Your task to perform on an android device: Show me popular videos on Youtube Image 0: 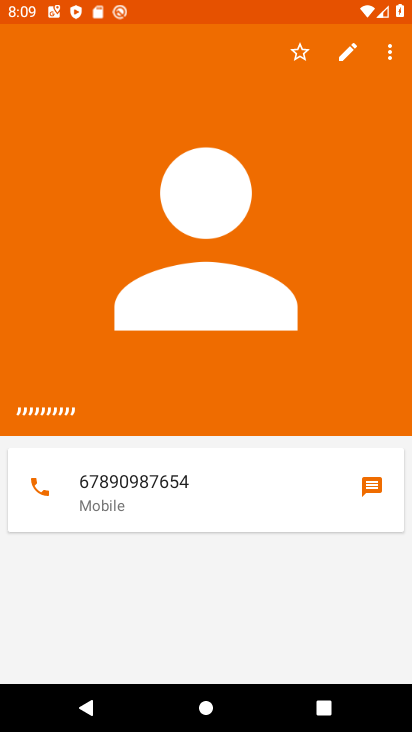
Step 0: press home button
Your task to perform on an android device: Show me popular videos on Youtube Image 1: 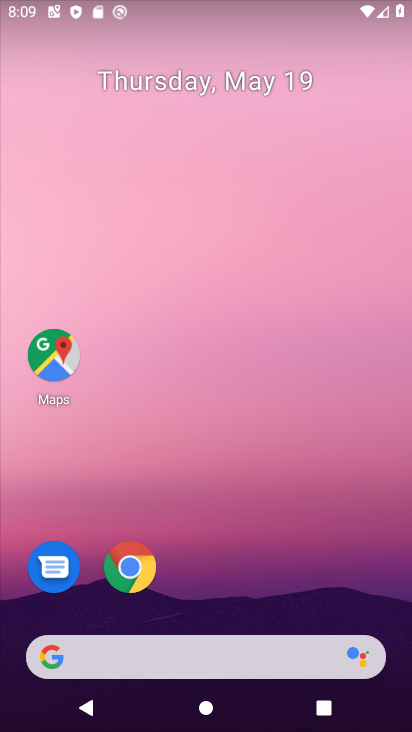
Step 1: drag from (328, 529) to (334, 165)
Your task to perform on an android device: Show me popular videos on Youtube Image 2: 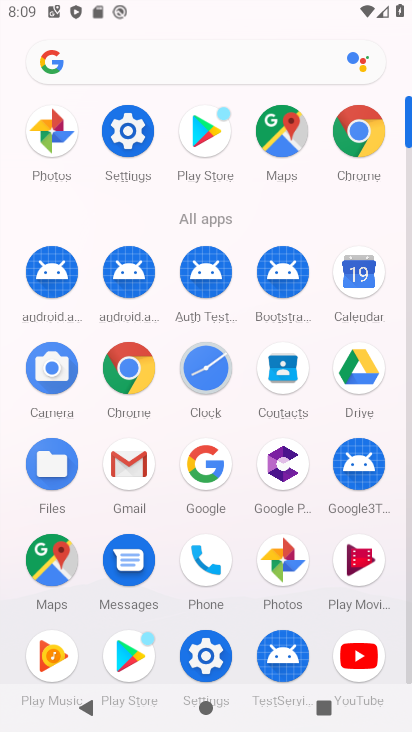
Step 2: click (354, 644)
Your task to perform on an android device: Show me popular videos on Youtube Image 3: 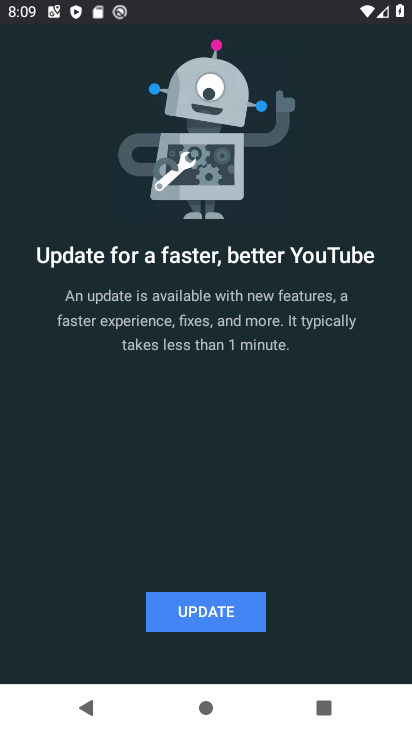
Step 3: click (202, 624)
Your task to perform on an android device: Show me popular videos on Youtube Image 4: 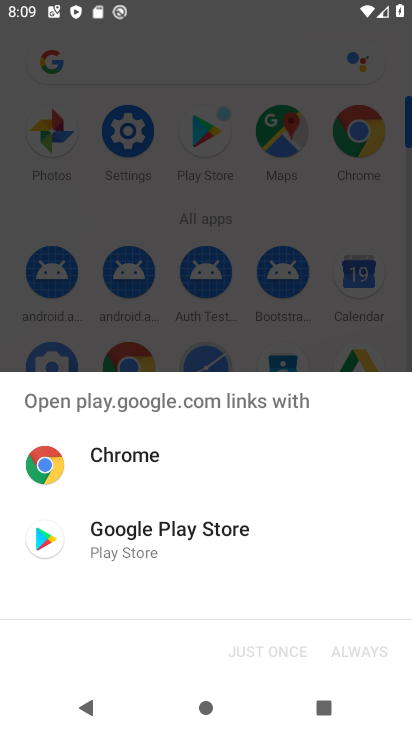
Step 4: click (164, 573)
Your task to perform on an android device: Show me popular videos on Youtube Image 5: 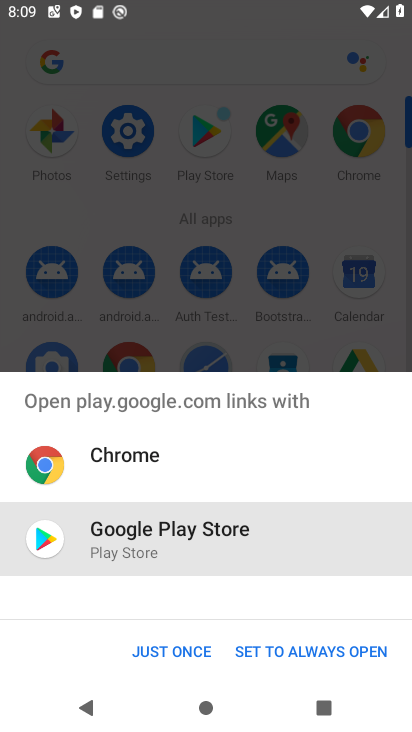
Step 5: click (195, 652)
Your task to perform on an android device: Show me popular videos on Youtube Image 6: 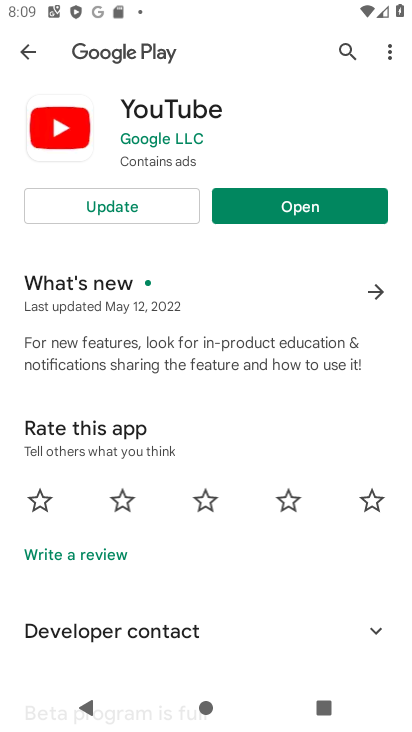
Step 6: click (156, 205)
Your task to perform on an android device: Show me popular videos on Youtube Image 7: 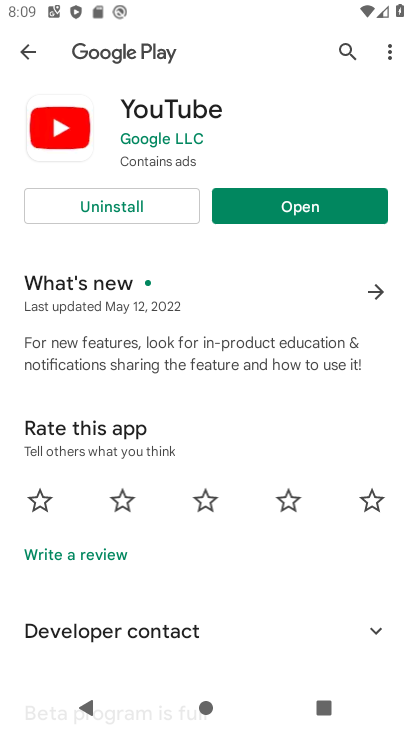
Step 7: click (243, 208)
Your task to perform on an android device: Show me popular videos on Youtube Image 8: 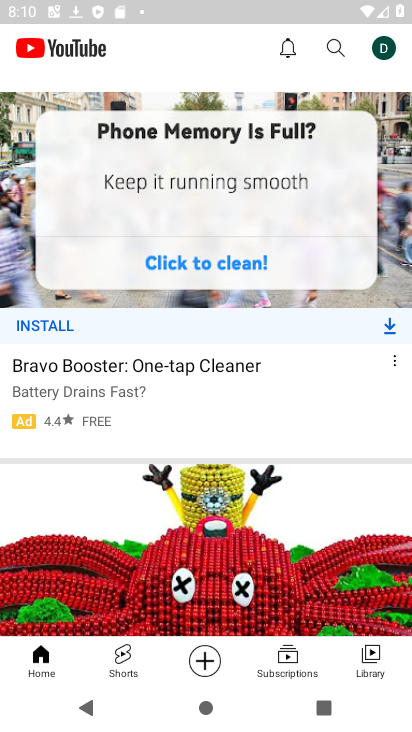
Step 8: drag from (127, 159) to (92, 677)
Your task to perform on an android device: Show me popular videos on Youtube Image 9: 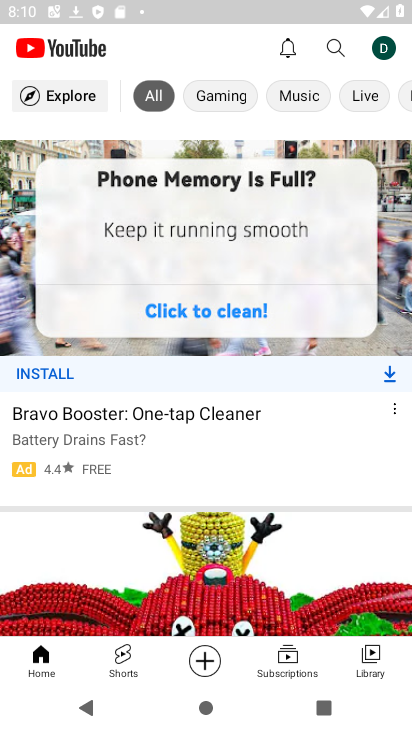
Step 9: click (73, 76)
Your task to perform on an android device: Show me popular videos on Youtube Image 10: 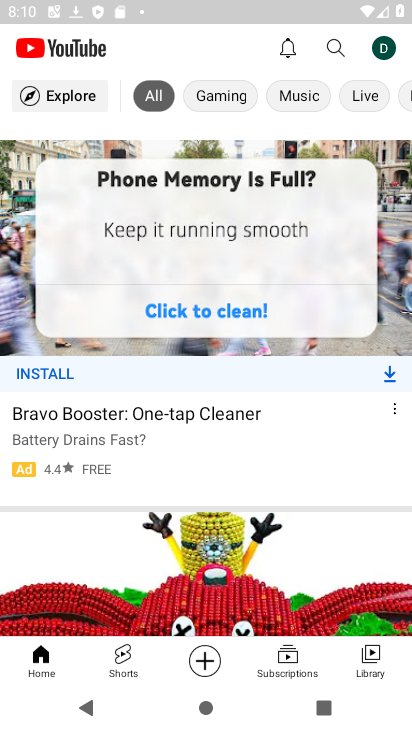
Step 10: click (80, 89)
Your task to perform on an android device: Show me popular videos on Youtube Image 11: 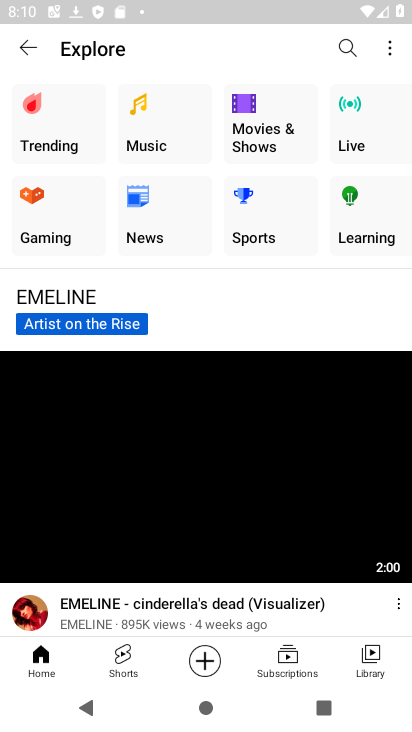
Step 11: click (67, 116)
Your task to perform on an android device: Show me popular videos on Youtube Image 12: 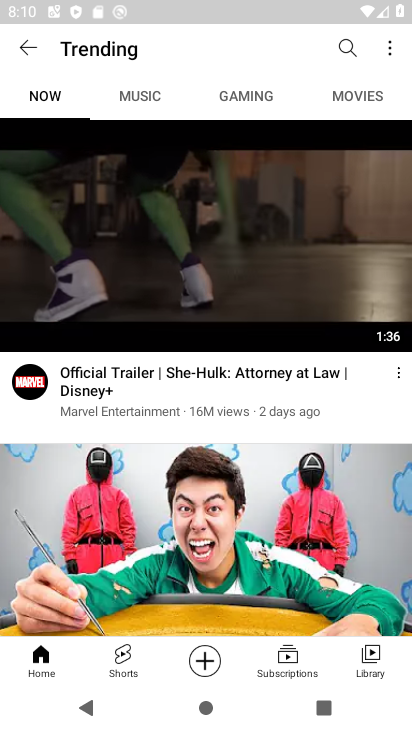
Step 12: task complete